Your task to perform on an android device: find snoozed emails in the gmail app Image 0: 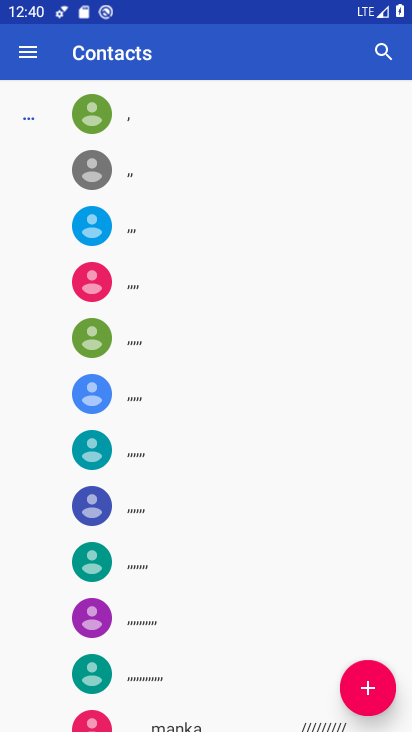
Step 0: press home button
Your task to perform on an android device: find snoozed emails in the gmail app Image 1: 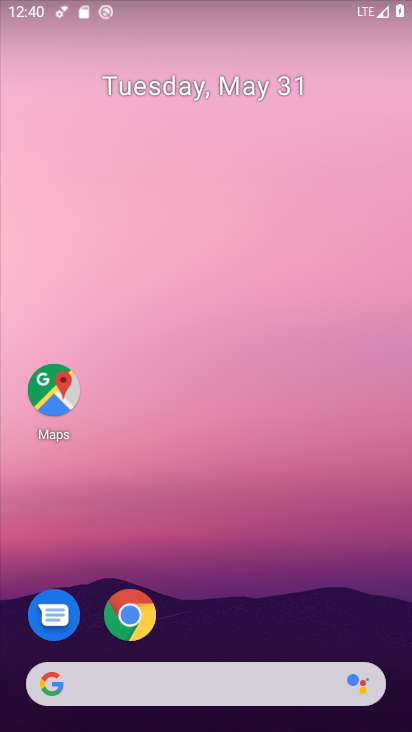
Step 1: drag from (219, 633) to (266, 8)
Your task to perform on an android device: find snoozed emails in the gmail app Image 2: 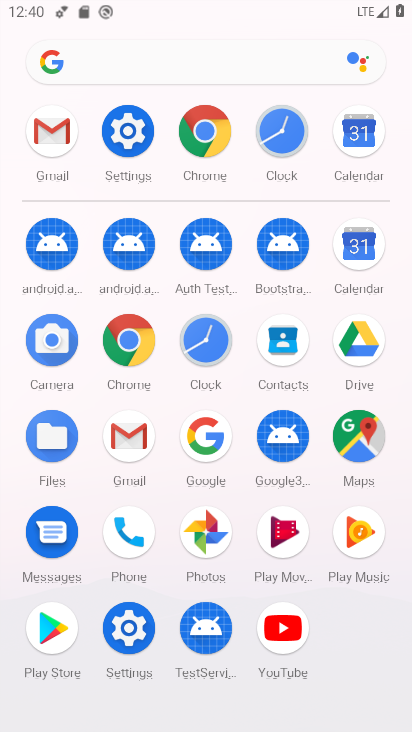
Step 2: click (145, 440)
Your task to perform on an android device: find snoozed emails in the gmail app Image 3: 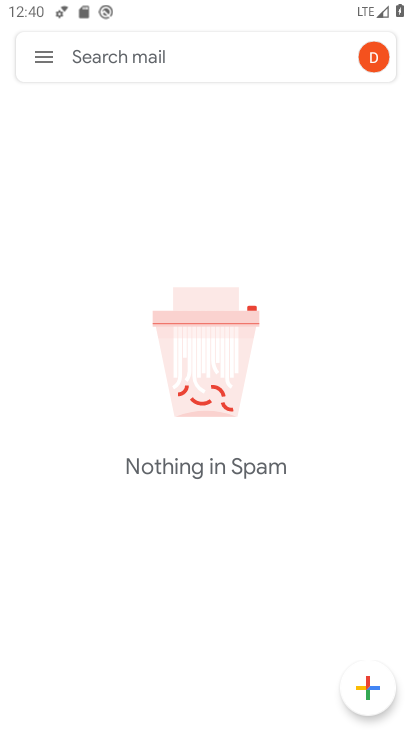
Step 3: click (42, 45)
Your task to perform on an android device: find snoozed emails in the gmail app Image 4: 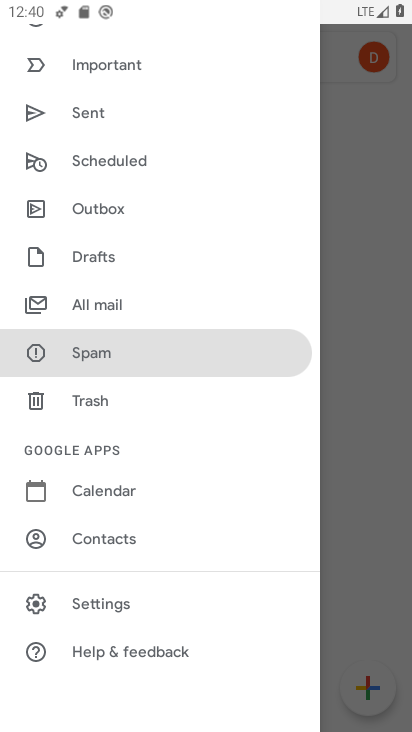
Step 4: drag from (134, 235) to (100, 540)
Your task to perform on an android device: find snoozed emails in the gmail app Image 5: 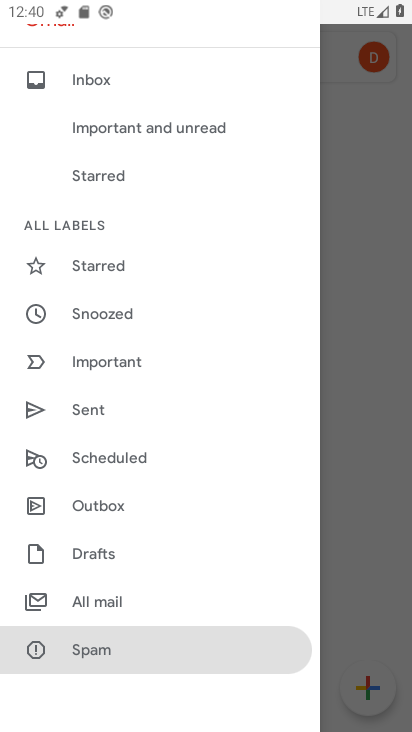
Step 5: click (110, 314)
Your task to perform on an android device: find snoozed emails in the gmail app Image 6: 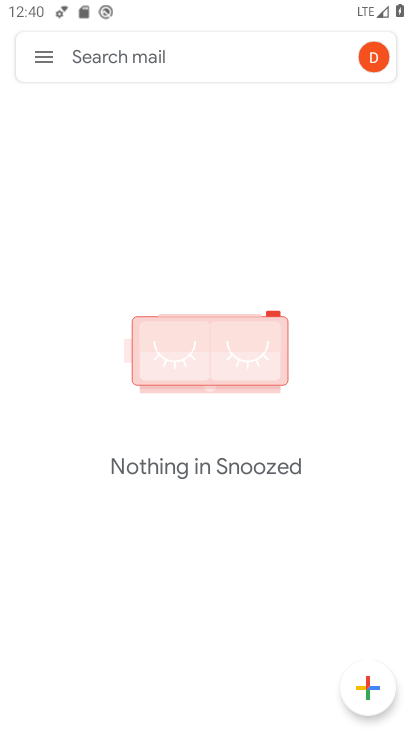
Step 6: task complete